Your task to perform on an android device: Go to Google maps Image 0: 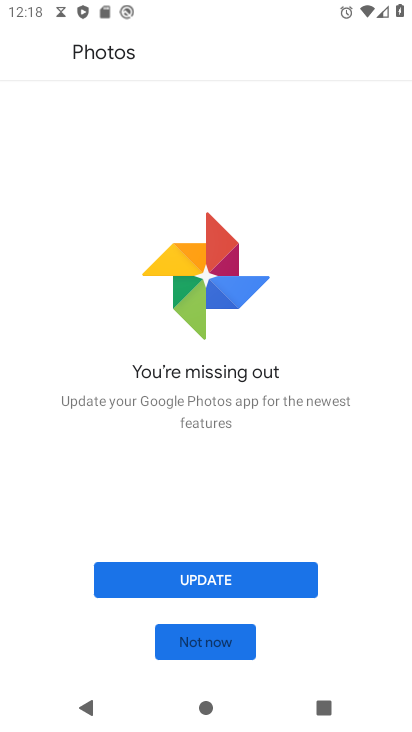
Step 0: press home button
Your task to perform on an android device: Go to Google maps Image 1: 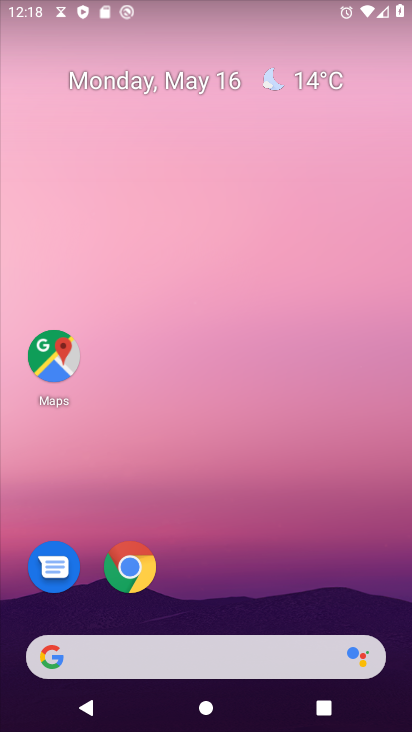
Step 1: drag from (236, 610) to (279, 102)
Your task to perform on an android device: Go to Google maps Image 2: 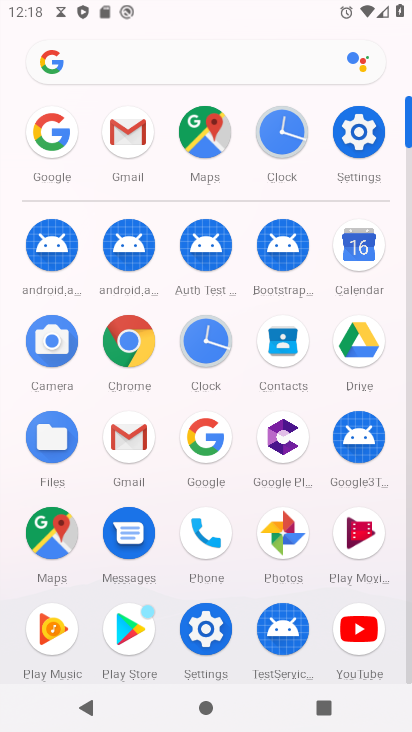
Step 2: click (39, 547)
Your task to perform on an android device: Go to Google maps Image 3: 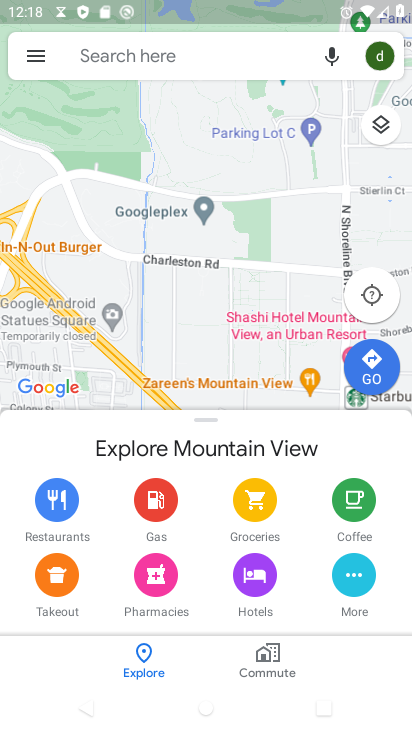
Step 3: task complete